Your task to perform on an android device: clear history in the chrome app Image 0: 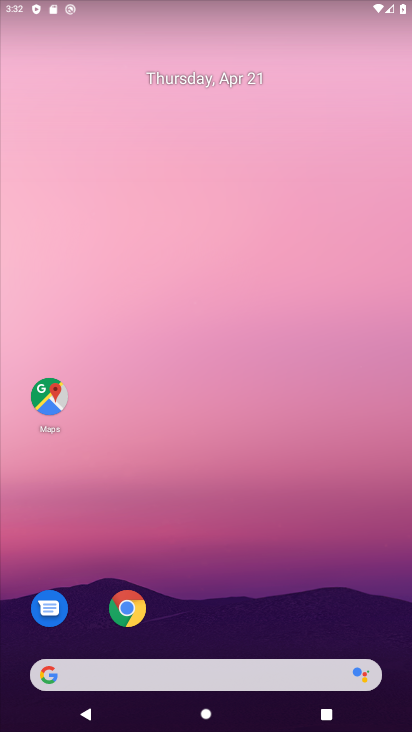
Step 0: drag from (216, 610) to (254, 149)
Your task to perform on an android device: clear history in the chrome app Image 1: 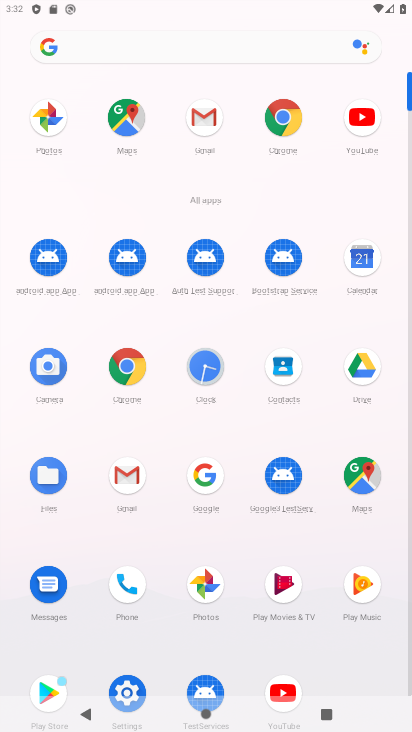
Step 1: click (132, 369)
Your task to perform on an android device: clear history in the chrome app Image 2: 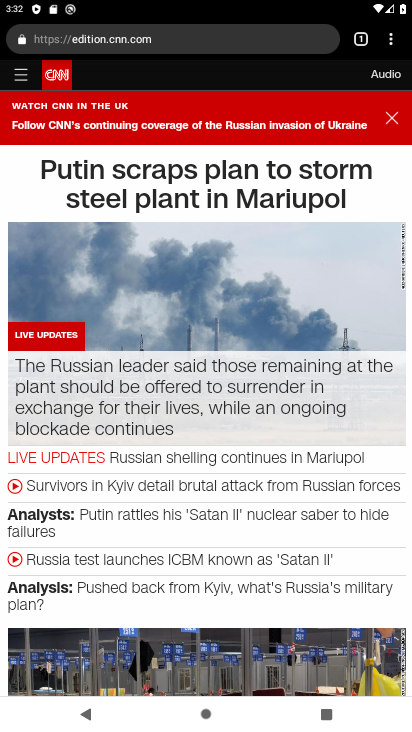
Step 2: drag from (389, 42) to (319, 261)
Your task to perform on an android device: clear history in the chrome app Image 3: 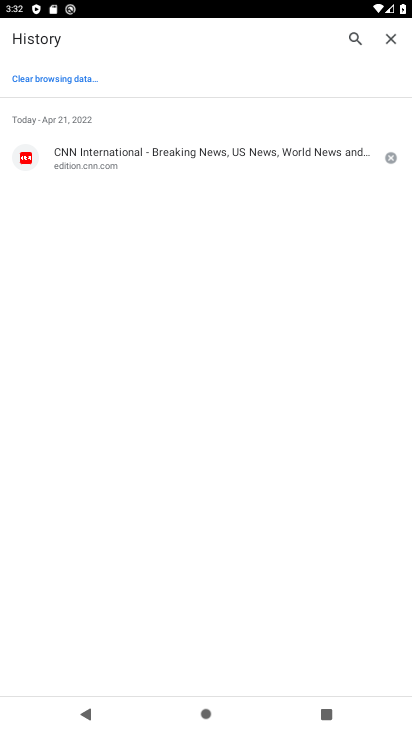
Step 3: click (94, 76)
Your task to perform on an android device: clear history in the chrome app Image 4: 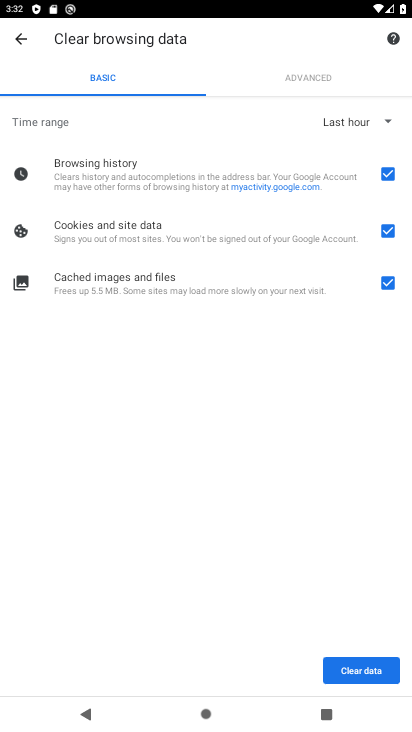
Step 4: click (354, 662)
Your task to perform on an android device: clear history in the chrome app Image 5: 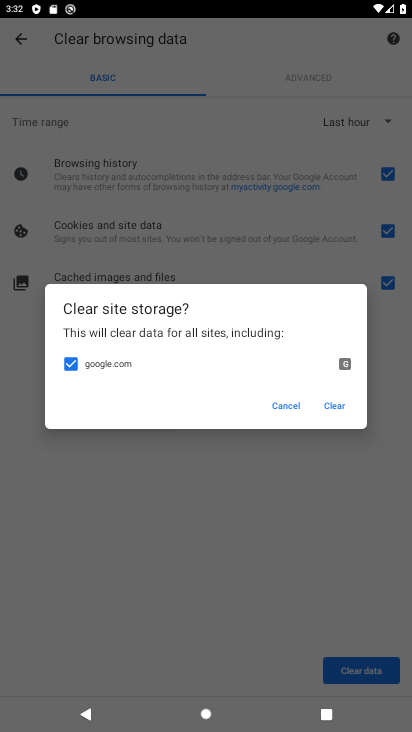
Step 5: press home button
Your task to perform on an android device: clear history in the chrome app Image 6: 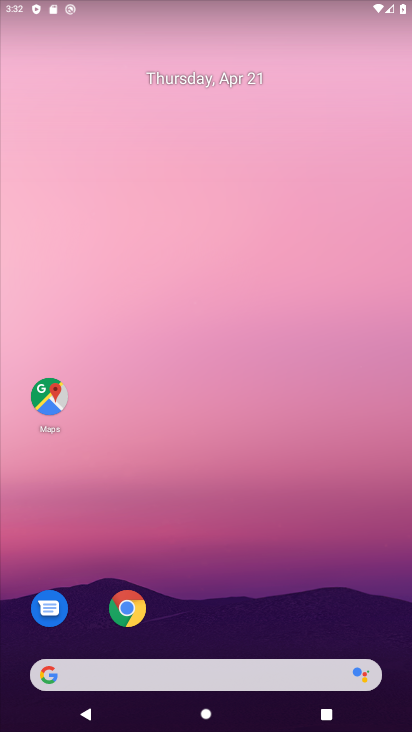
Step 6: click (130, 613)
Your task to perform on an android device: clear history in the chrome app Image 7: 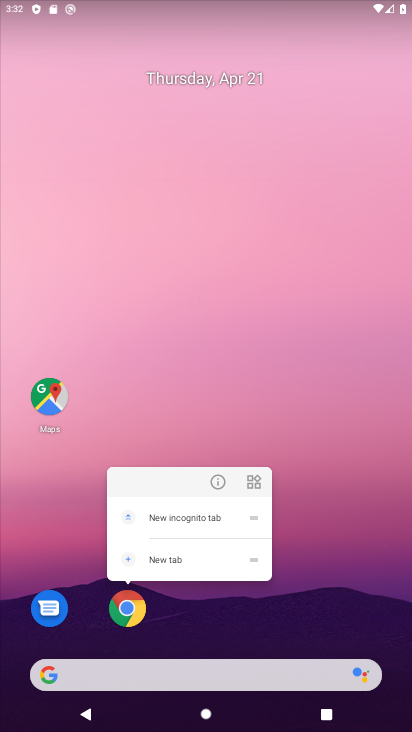
Step 7: click (130, 613)
Your task to perform on an android device: clear history in the chrome app Image 8: 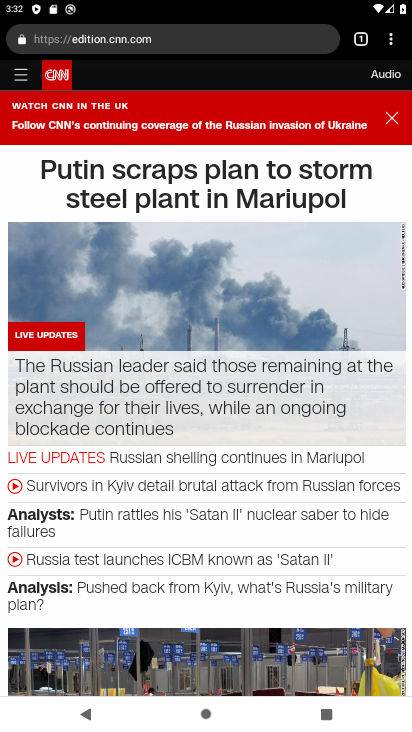
Step 8: drag from (391, 45) to (269, 259)
Your task to perform on an android device: clear history in the chrome app Image 9: 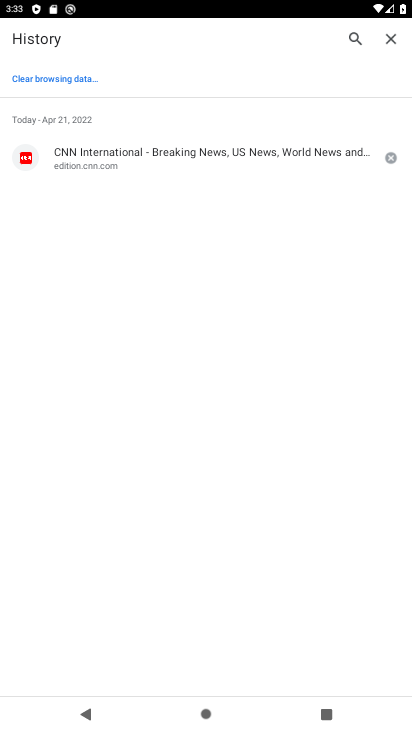
Step 9: click (56, 81)
Your task to perform on an android device: clear history in the chrome app Image 10: 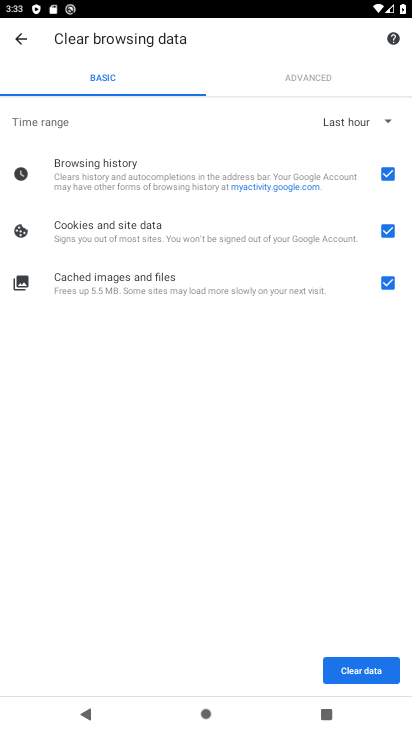
Step 10: click (364, 677)
Your task to perform on an android device: clear history in the chrome app Image 11: 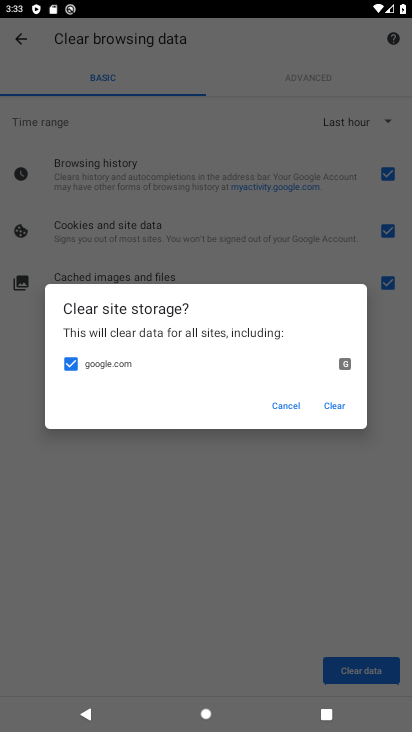
Step 11: click (332, 405)
Your task to perform on an android device: clear history in the chrome app Image 12: 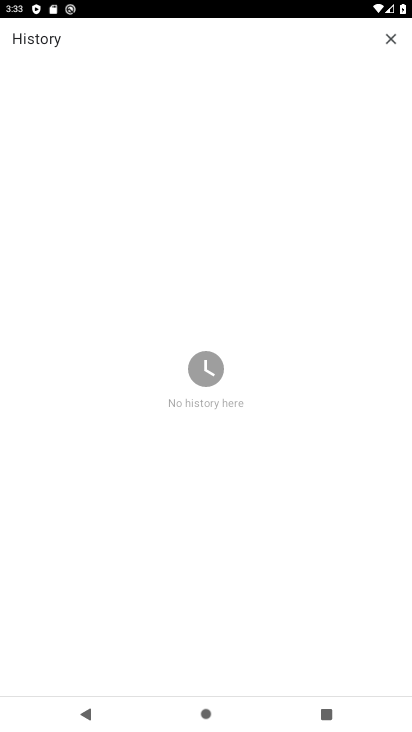
Step 12: task complete